Your task to perform on an android device: Search for pizza restaurants on Maps Image 0: 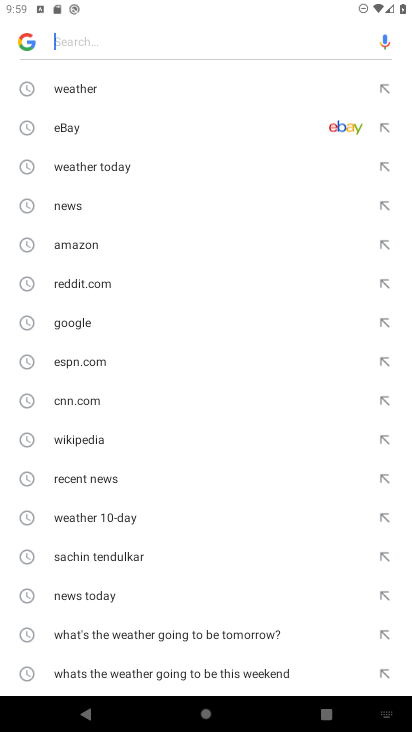
Step 0: press home button
Your task to perform on an android device: Search for pizza restaurants on Maps Image 1: 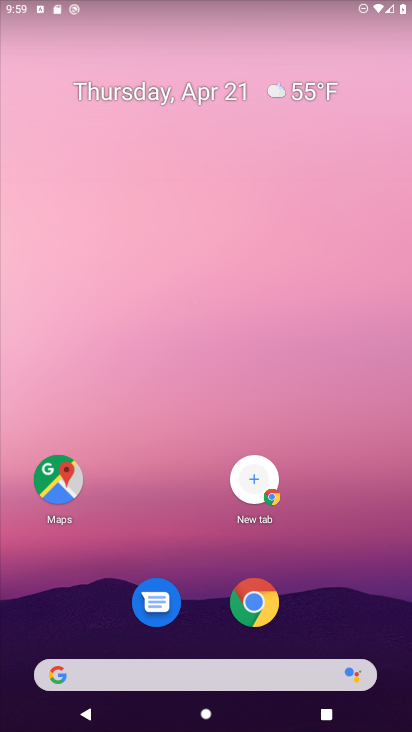
Step 1: click (39, 468)
Your task to perform on an android device: Search for pizza restaurants on Maps Image 2: 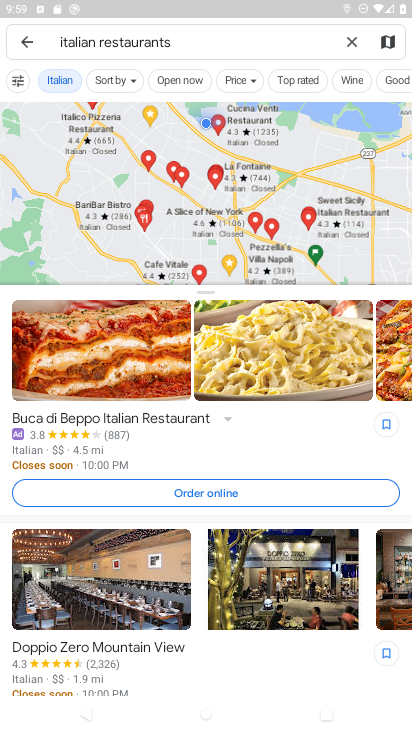
Step 2: click (352, 49)
Your task to perform on an android device: Search for pizza restaurants on Maps Image 3: 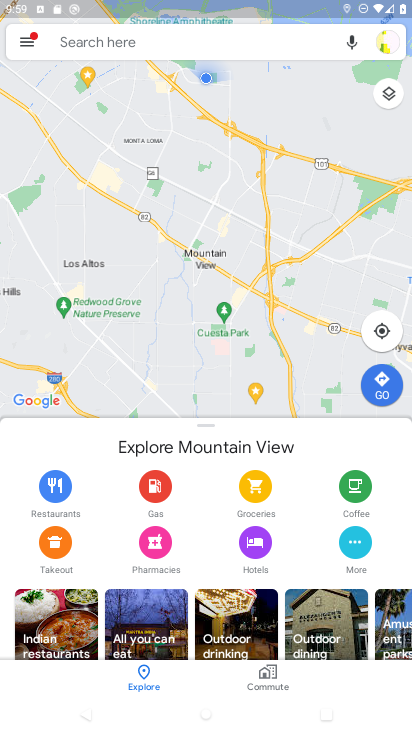
Step 3: click (190, 44)
Your task to perform on an android device: Search for pizza restaurants on Maps Image 4: 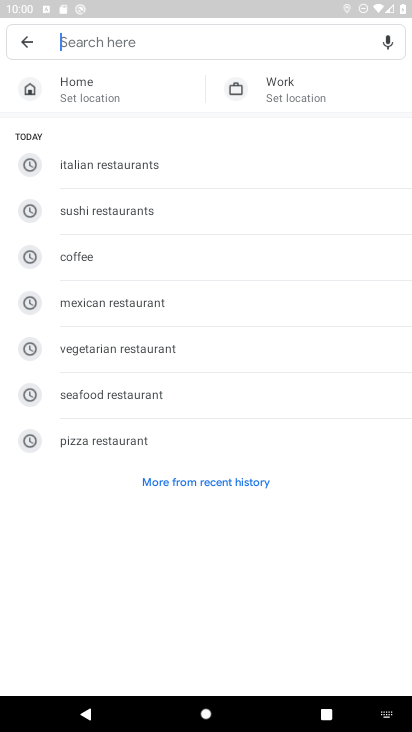
Step 4: click (243, 449)
Your task to perform on an android device: Search for pizza restaurants on Maps Image 5: 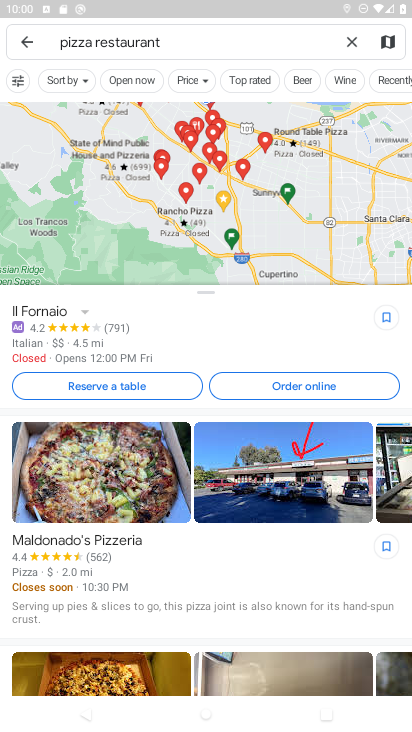
Step 5: task complete